Your task to perform on an android device: Go to network settings Image 0: 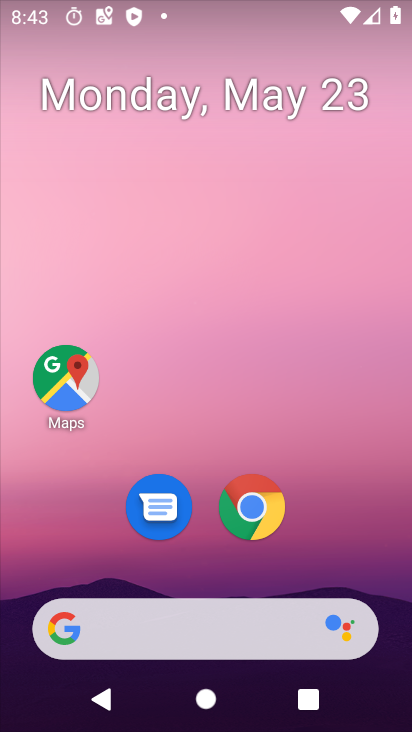
Step 0: drag from (339, 470) to (303, 29)
Your task to perform on an android device: Go to network settings Image 1: 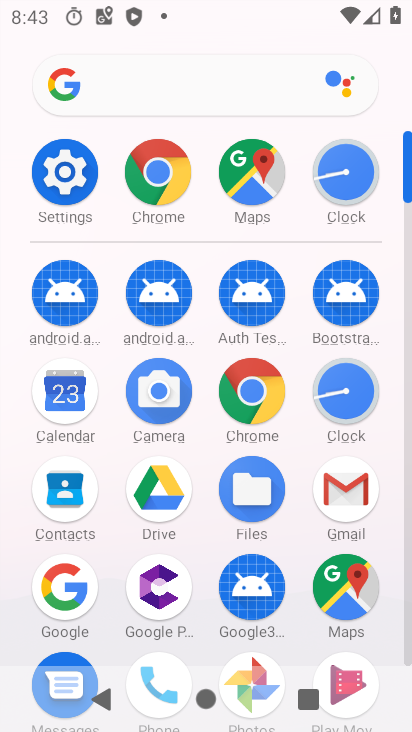
Step 1: click (75, 172)
Your task to perform on an android device: Go to network settings Image 2: 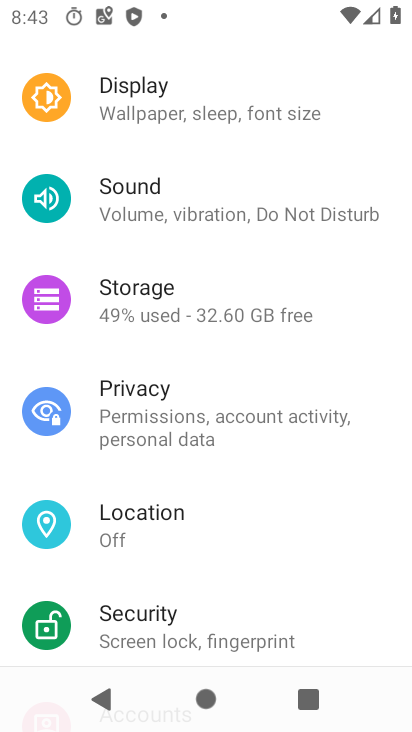
Step 2: drag from (189, 36) to (190, 570)
Your task to perform on an android device: Go to network settings Image 3: 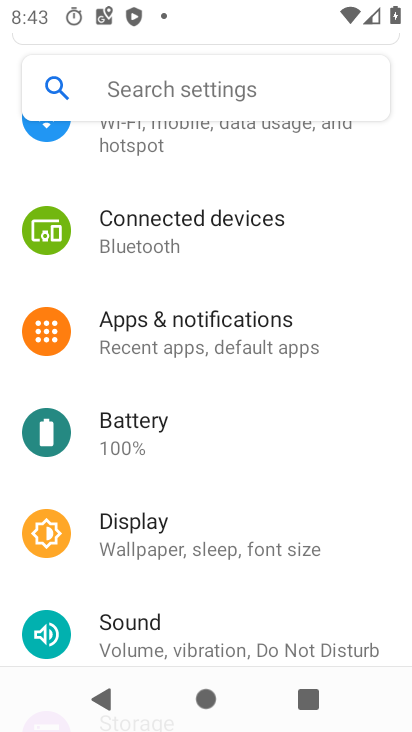
Step 3: drag from (174, 192) to (174, 608)
Your task to perform on an android device: Go to network settings Image 4: 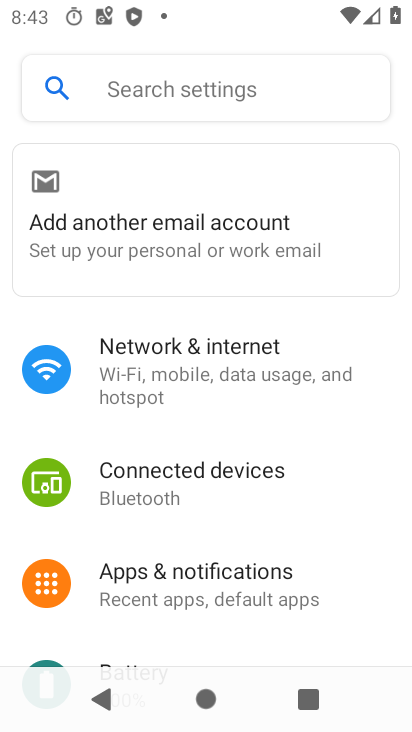
Step 4: click (121, 346)
Your task to perform on an android device: Go to network settings Image 5: 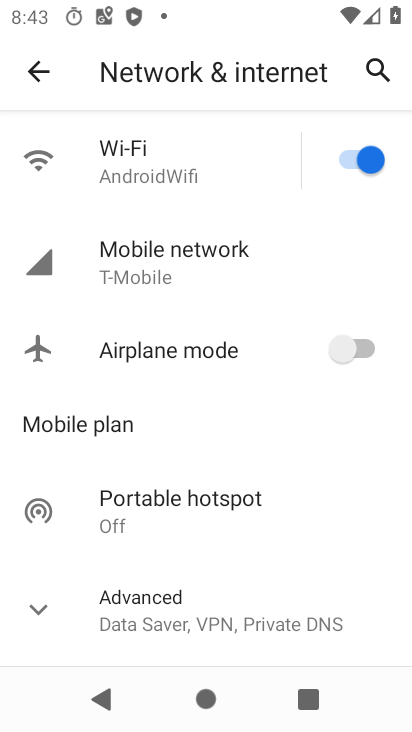
Step 5: task complete